Your task to perform on an android device: What's a good restaurant in Los Angeles? Image 0: 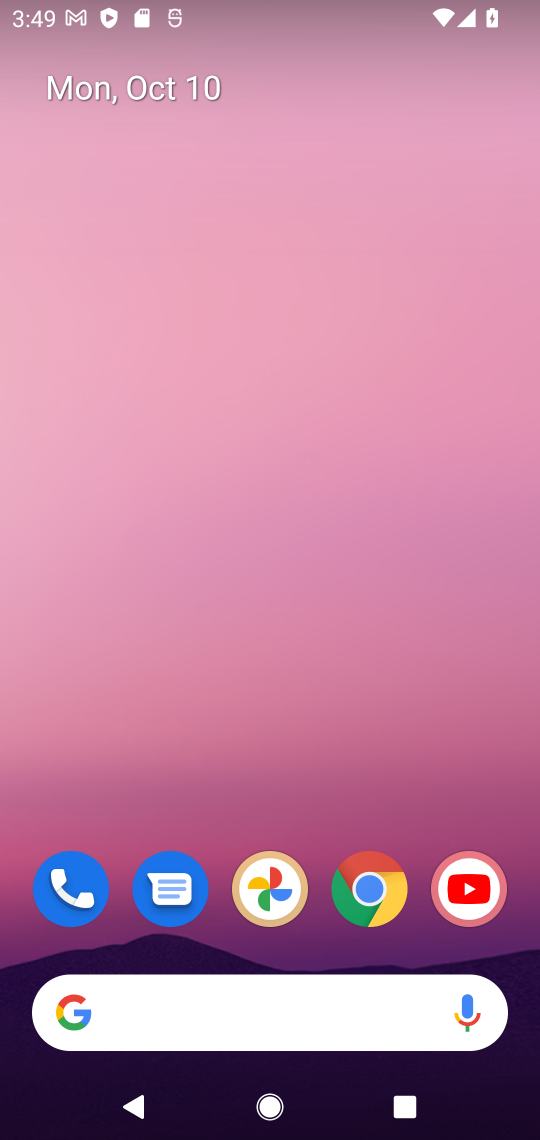
Step 0: click (370, 884)
Your task to perform on an android device: What's a good restaurant in Los Angeles? Image 1: 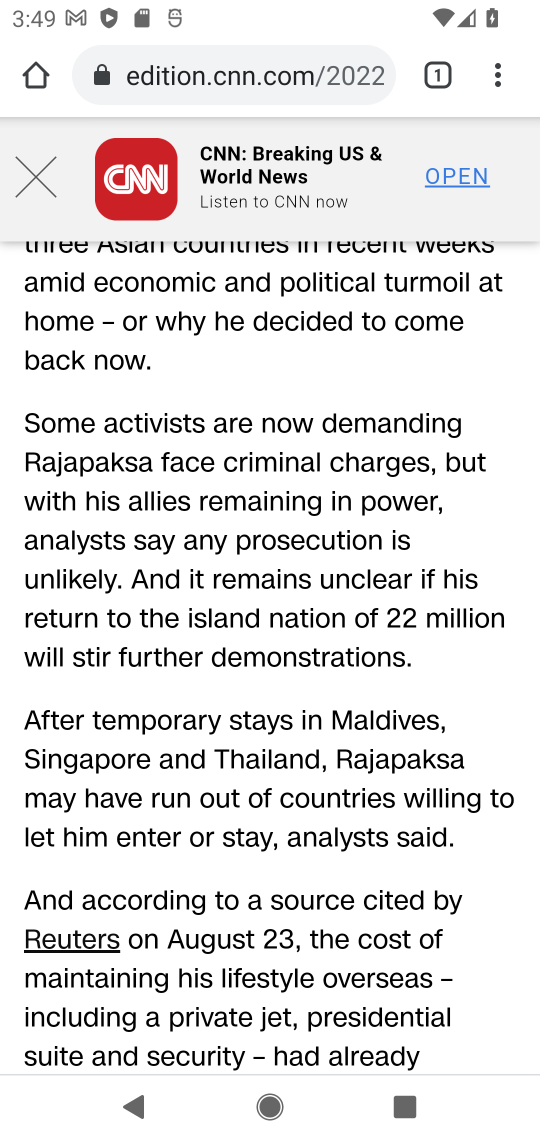
Step 1: click (271, 57)
Your task to perform on an android device: What's a good restaurant in Los Angeles? Image 2: 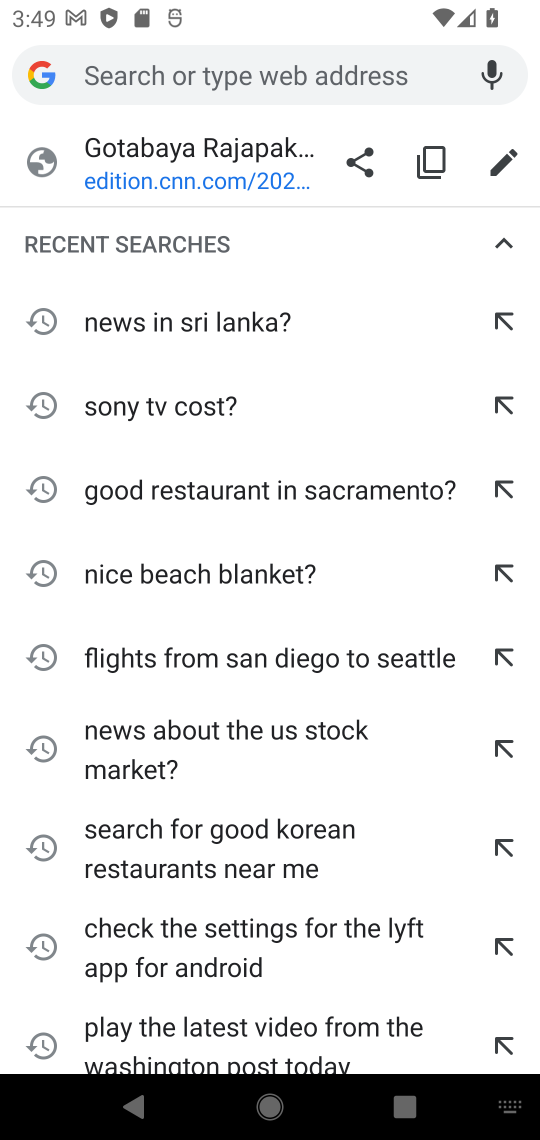
Step 2: type "good restaurant in Los Angeles?"
Your task to perform on an android device: What's a good restaurant in Los Angeles? Image 3: 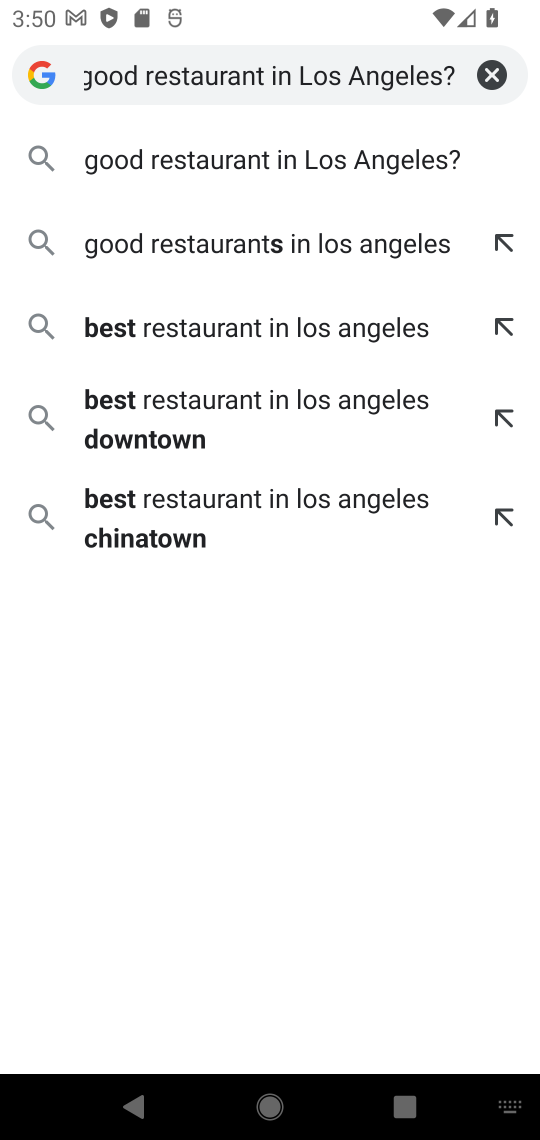
Step 3: click (167, 159)
Your task to perform on an android device: What's a good restaurant in Los Angeles? Image 4: 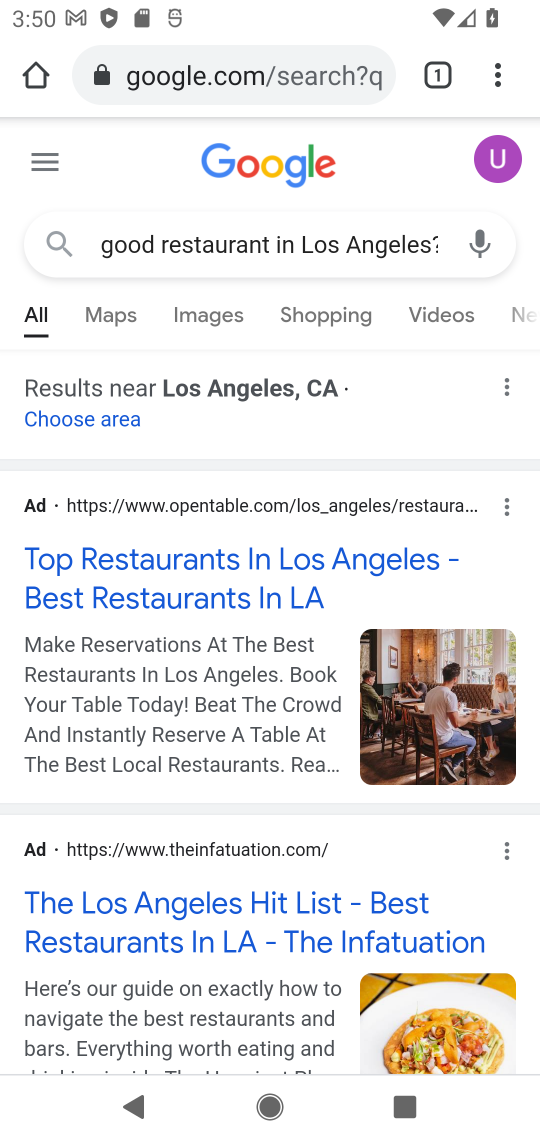
Step 4: click (139, 569)
Your task to perform on an android device: What's a good restaurant in Los Angeles? Image 5: 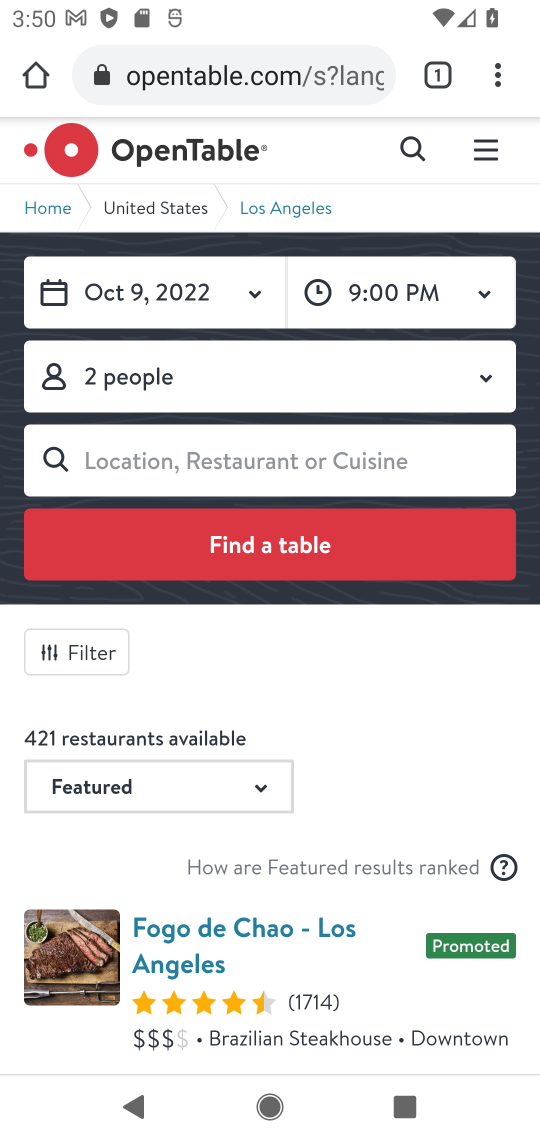
Step 5: task complete